Your task to perform on an android device: Search for vegetarian restaurants on Maps Image 0: 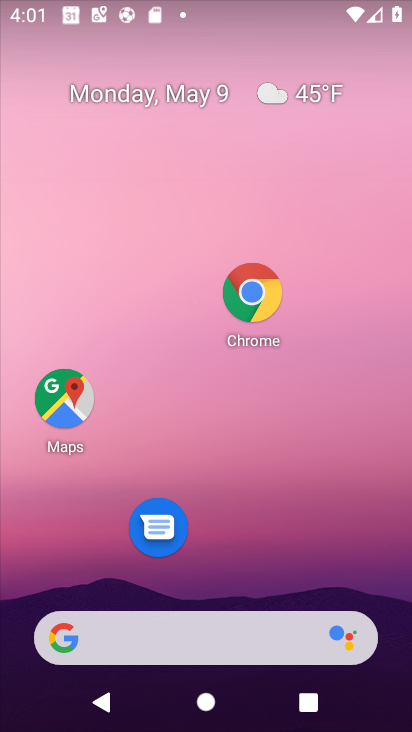
Step 0: drag from (328, 378) to (335, 231)
Your task to perform on an android device: Search for vegetarian restaurants on Maps Image 1: 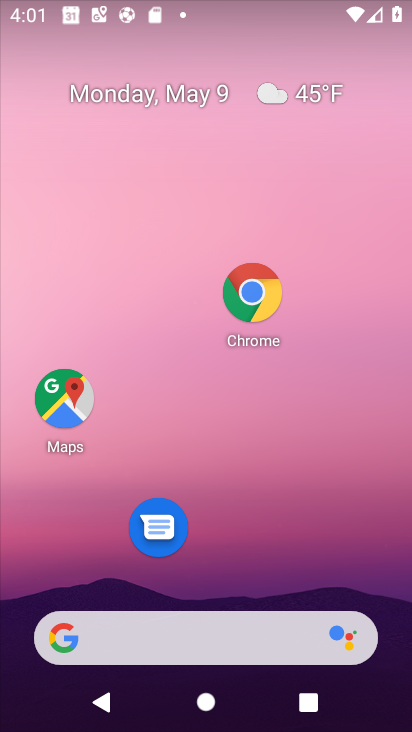
Step 1: drag from (189, 661) to (161, 139)
Your task to perform on an android device: Search for vegetarian restaurants on Maps Image 2: 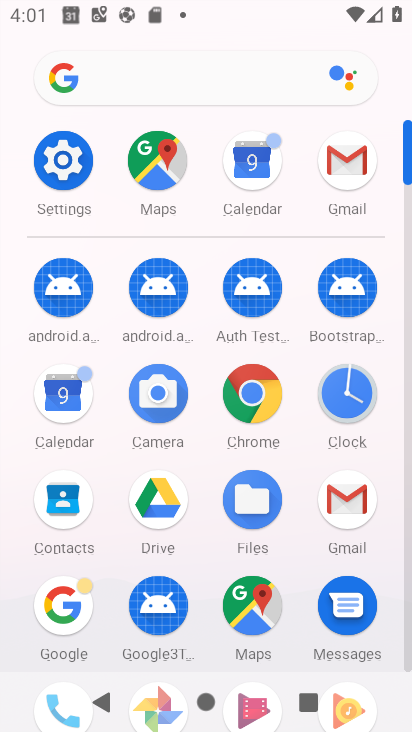
Step 2: click (250, 585)
Your task to perform on an android device: Search for vegetarian restaurants on Maps Image 3: 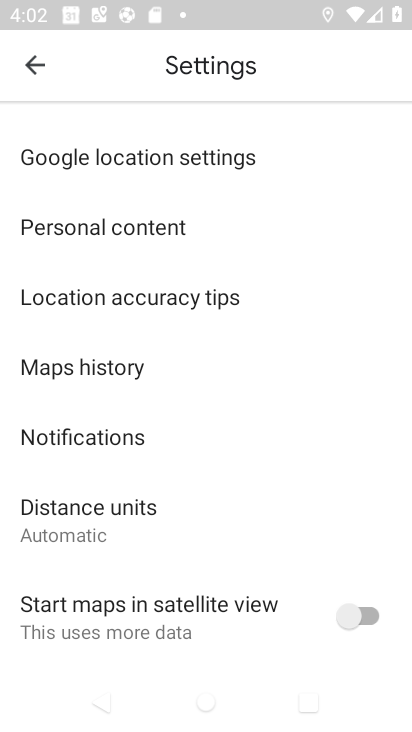
Step 3: click (41, 68)
Your task to perform on an android device: Search for vegetarian restaurants on Maps Image 4: 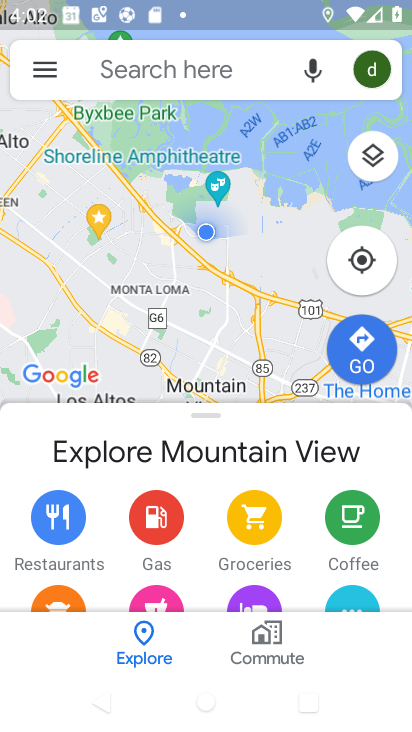
Step 4: click (250, 76)
Your task to perform on an android device: Search for vegetarian restaurants on Maps Image 5: 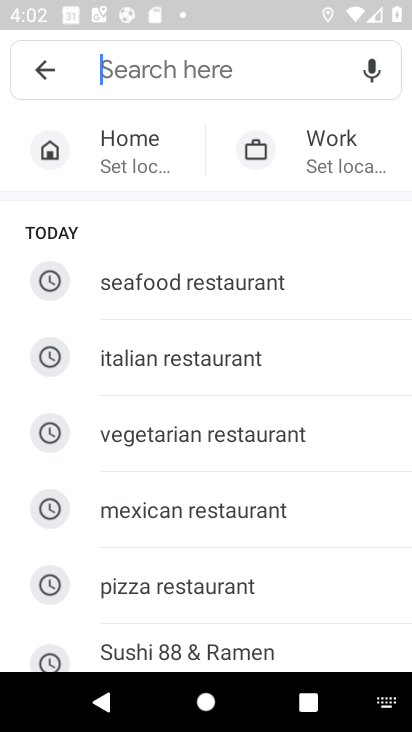
Step 5: type "vegetarian restaurants"
Your task to perform on an android device: Search for vegetarian restaurants on Maps Image 6: 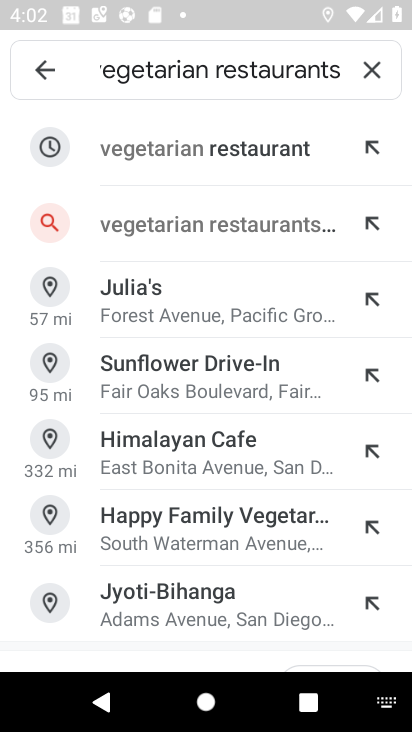
Step 6: click (290, 155)
Your task to perform on an android device: Search for vegetarian restaurants on Maps Image 7: 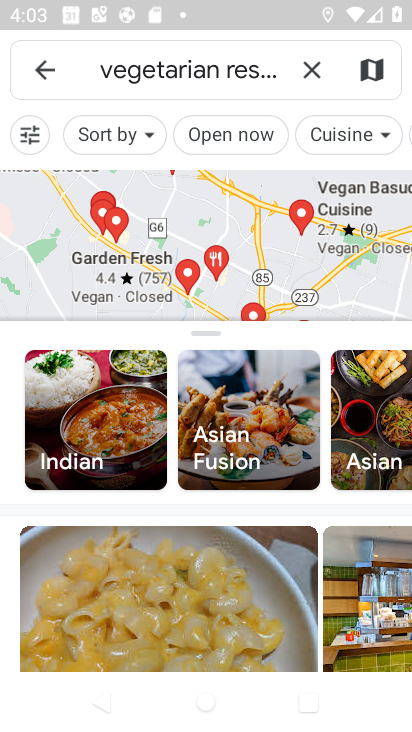
Step 7: task complete